Your task to perform on an android device: What's the weather like in Mexico City? Image 0: 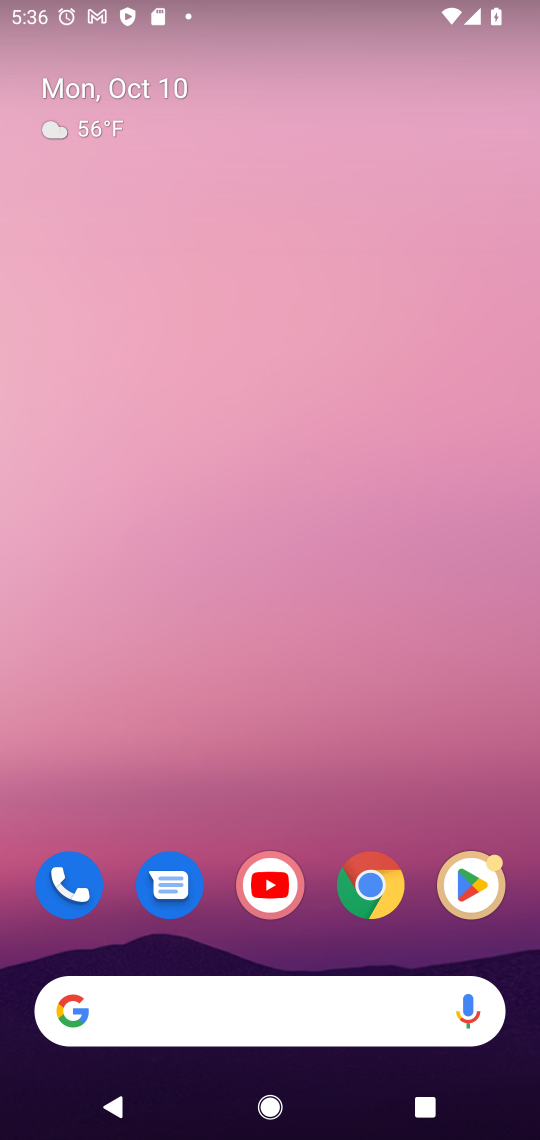
Step 0: click (225, 1012)
Your task to perform on an android device: What's the weather like in Mexico City? Image 1: 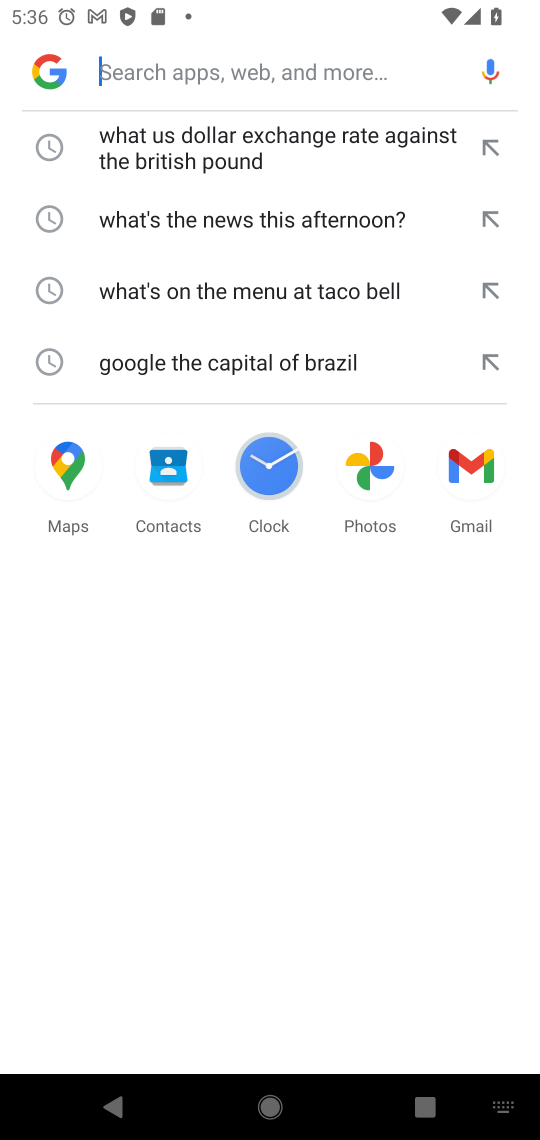
Step 1: type "What's the weather like in Mexico City?"
Your task to perform on an android device: What's the weather like in Mexico City? Image 2: 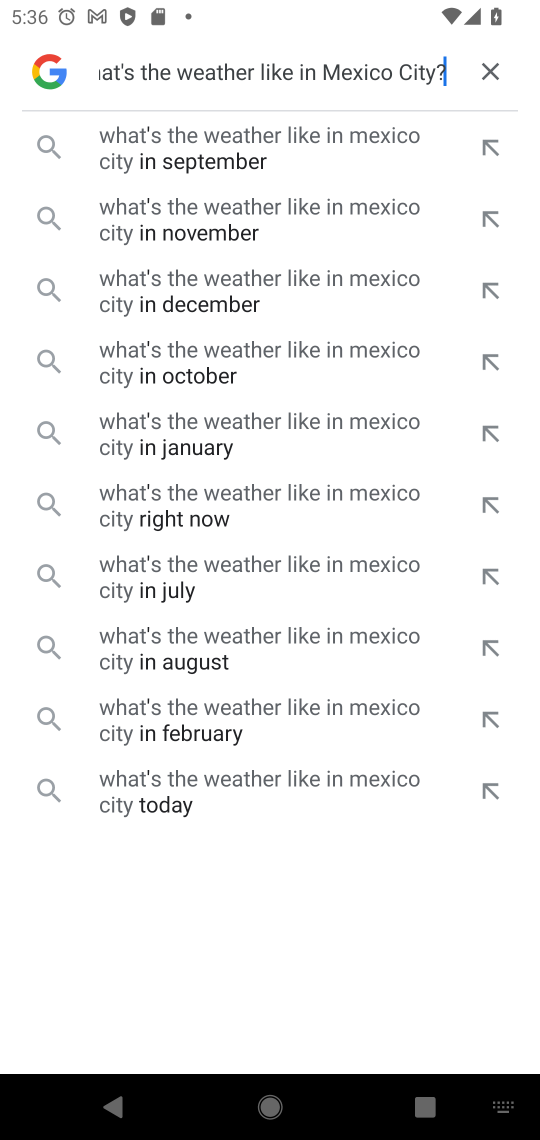
Step 2: click (317, 497)
Your task to perform on an android device: What's the weather like in Mexico City? Image 3: 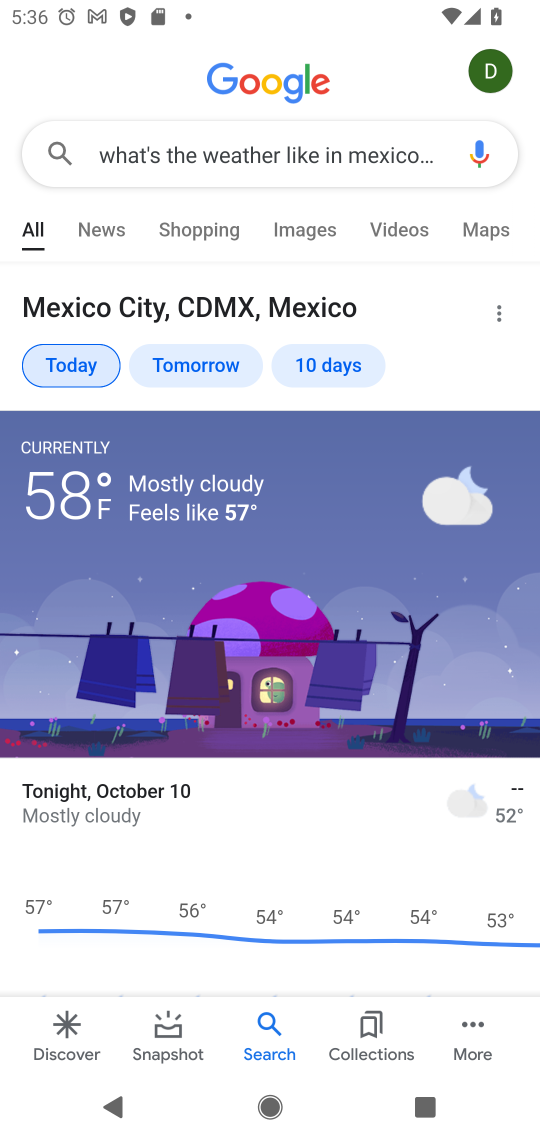
Step 3: task complete